Your task to perform on an android device: remove spam from my inbox in the gmail app Image 0: 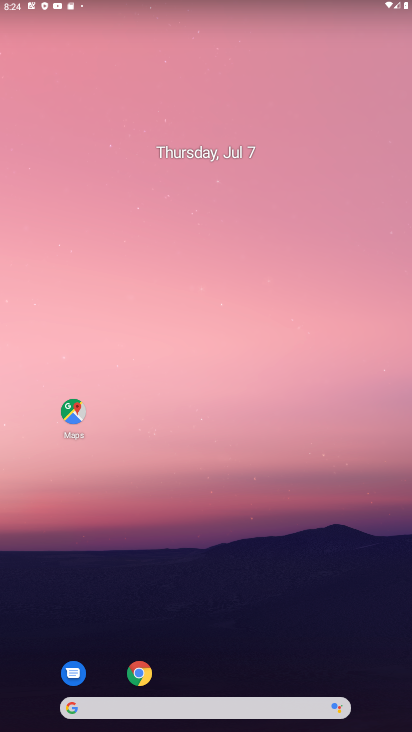
Step 0: press home button
Your task to perform on an android device: remove spam from my inbox in the gmail app Image 1: 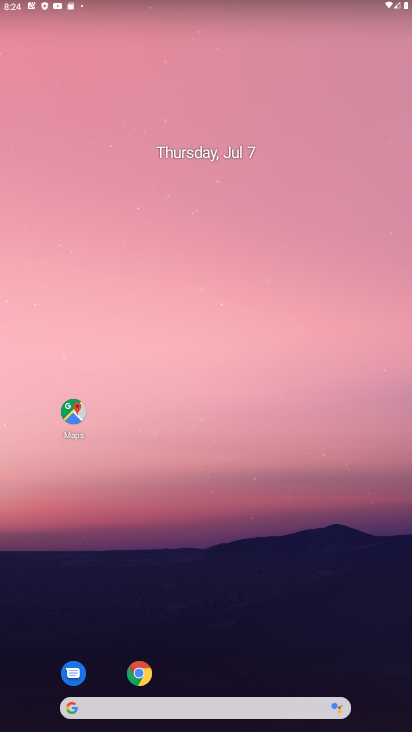
Step 1: drag from (182, 682) to (14, 41)
Your task to perform on an android device: remove spam from my inbox in the gmail app Image 2: 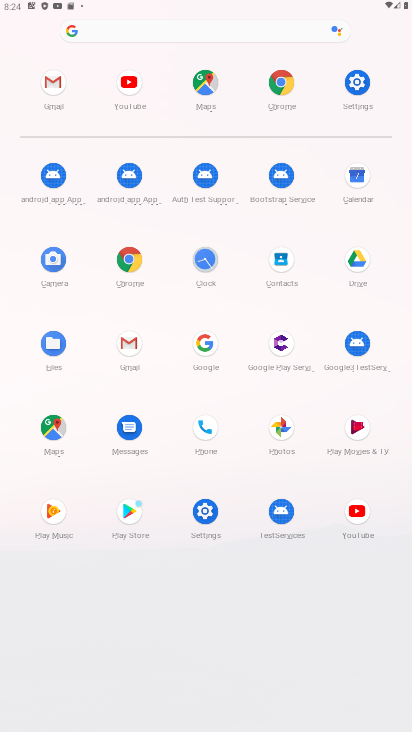
Step 2: click (60, 76)
Your task to perform on an android device: remove spam from my inbox in the gmail app Image 3: 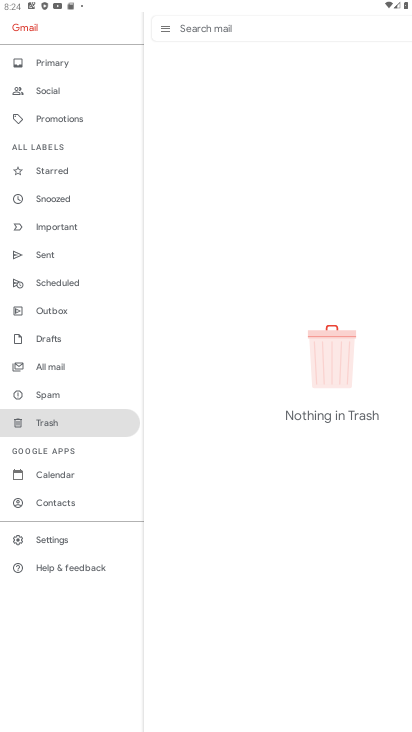
Step 3: click (38, 388)
Your task to perform on an android device: remove spam from my inbox in the gmail app Image 4: 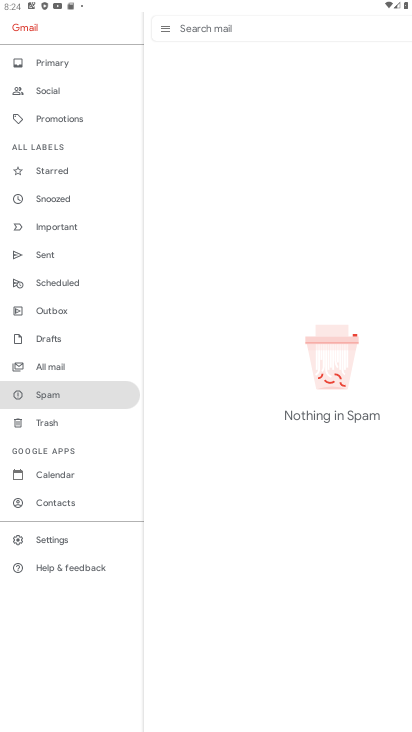
Step 4: task complete